Your task to perform on an android device: Go to Google maps Image 0: 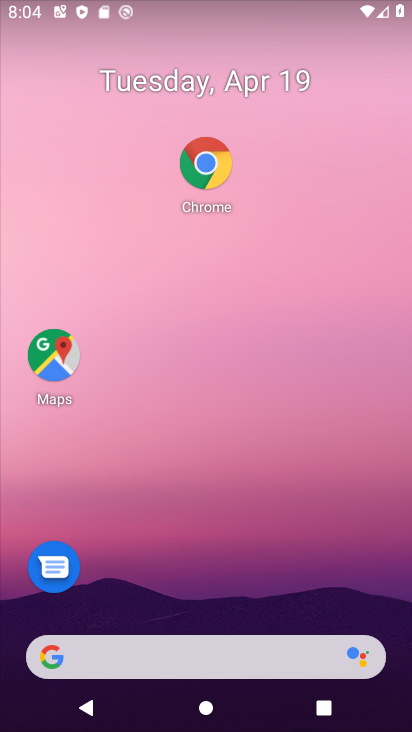
Step 0: click (61, 367)
Your task to perform on an android device: Go to Google maps Image 1: 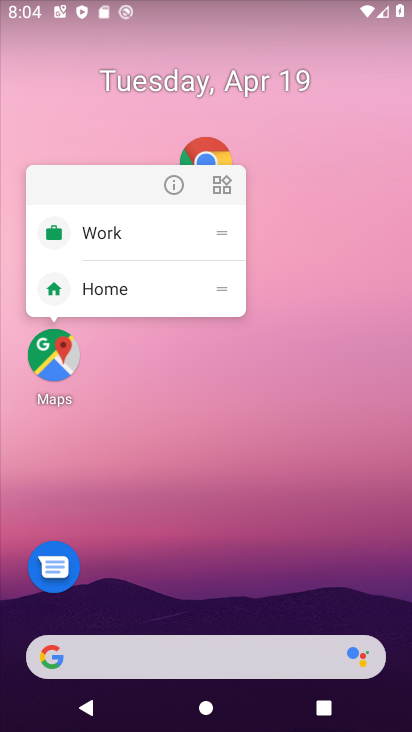
Step 1: click (53, 362)
Your task to perform on an android device: Go to Google maps Image 2: 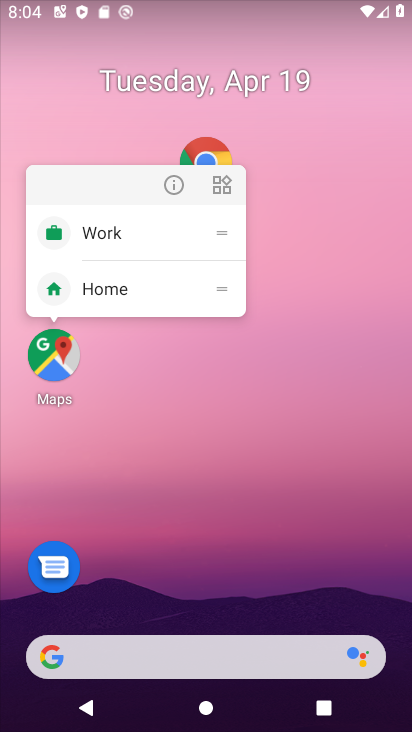
Step 2: click (55, 375)
Your task to perform on an android device: Go to Google maps Image 3: 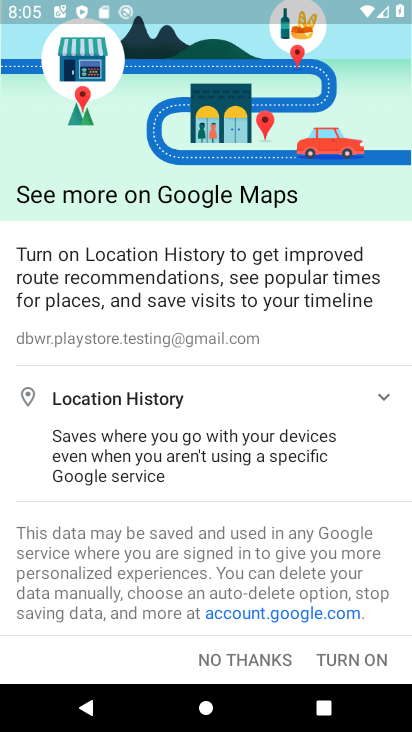
Step 3: click (267, 653)
Your task to perform on an android device: Go to Google maps Image 4: 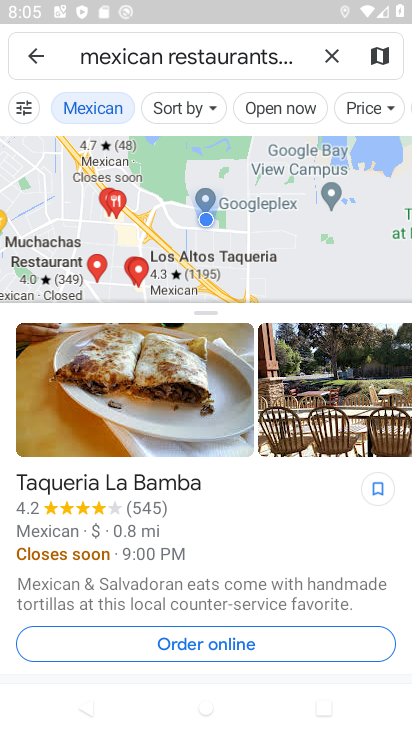
Step 4: task complete